Your task to perform on an android device: Go to Google Image 0: 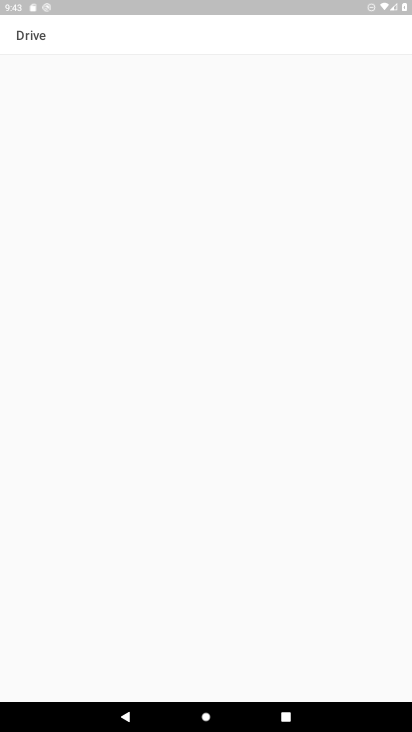
Step 0: press home button
Your task to perform on an android device: Go to Google Image 1: 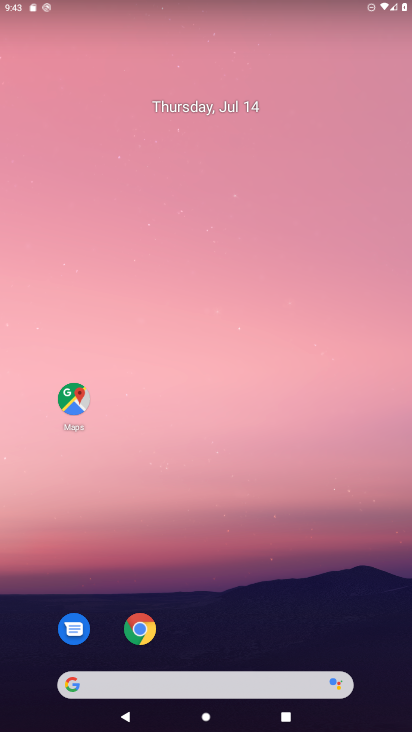
Step 1: drag from (235, 617) to (288, 49)
Your task to perform on an android device: Go to Google Image 2: 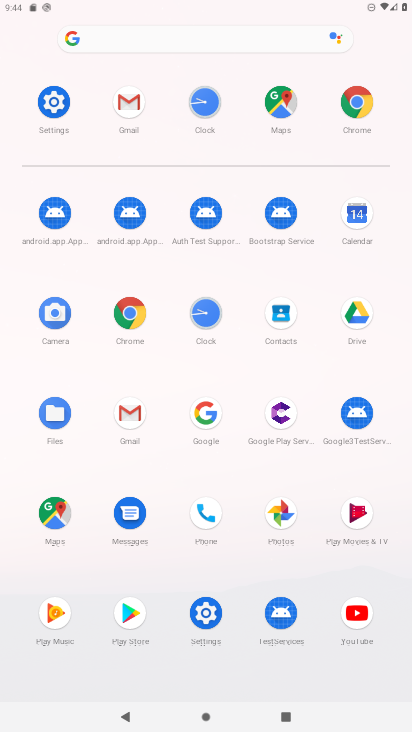
Step 2: click (210, 411)
Your task to perform on an android device: Go to Google Image 3: 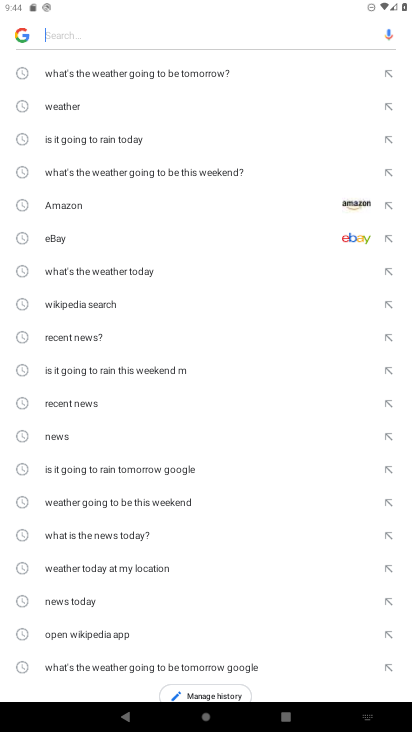
Step 3: task complete